Your task to perform on an android device: make emails show in primary in the gmail app Image 0: 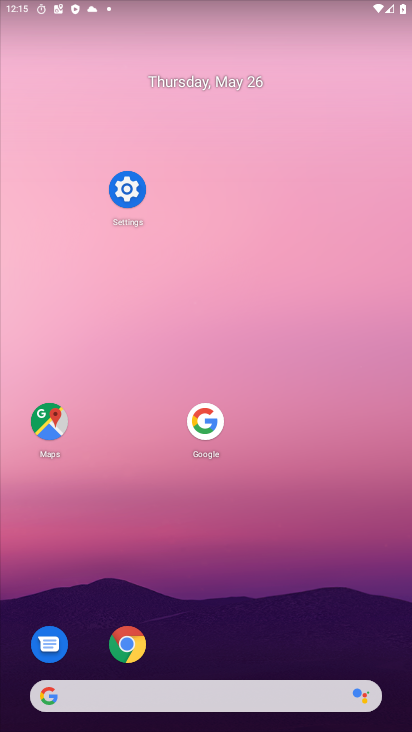
Step 0: drag from (250, 619) to (278, 166)
Your task to perform on an android device: make emails show in primary in the gmail app Image 1: 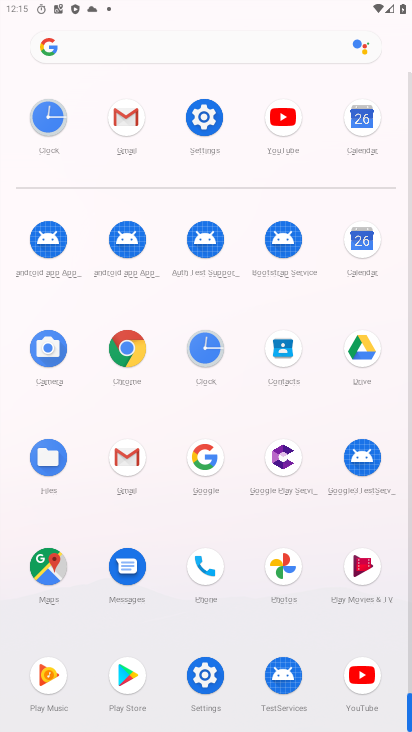
Step 1: click (129, 453)
Your task to perform on an android device: make emails show in primary in the gmail app Image 2: 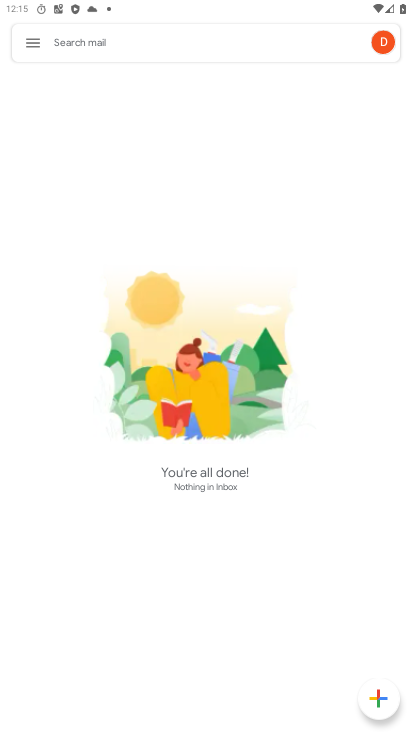
Step 2: click (26, 37)
Your task to perform on an android device: make emails show in primary in the gmail app Image 3: 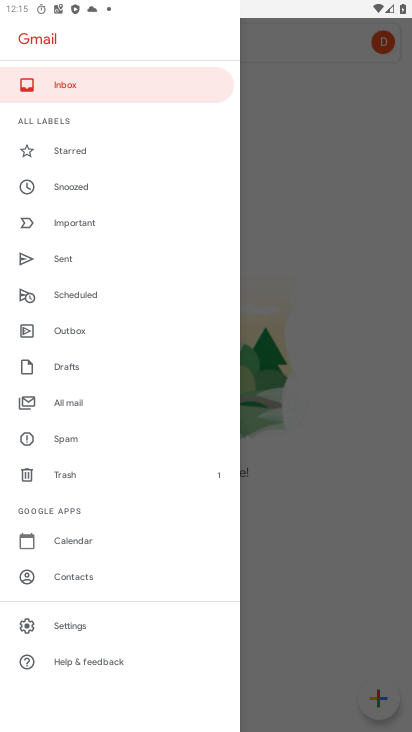
Step 3: click (82, 629)
Your task to perform on an android device: make emails show in primary in the gmail app Image 4: 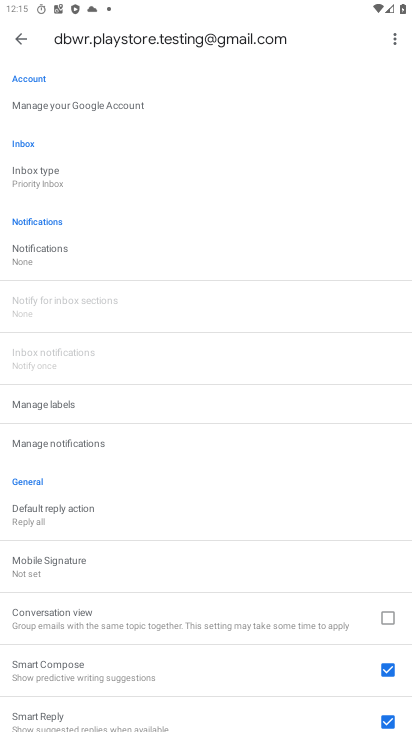
Step 4: click (29, 177)
Your task to perform on an android device: make emails show in primary in the gmail app Image 5: 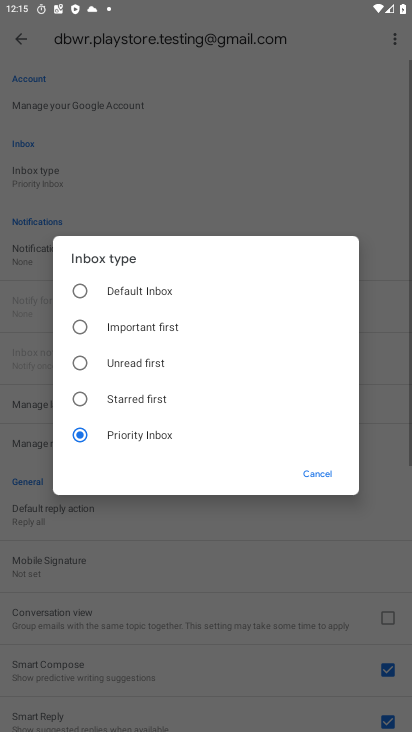
Step 5: click (125, 305)
Your task to perform on an android device: make emails show in primary in the gmail app Image 6: 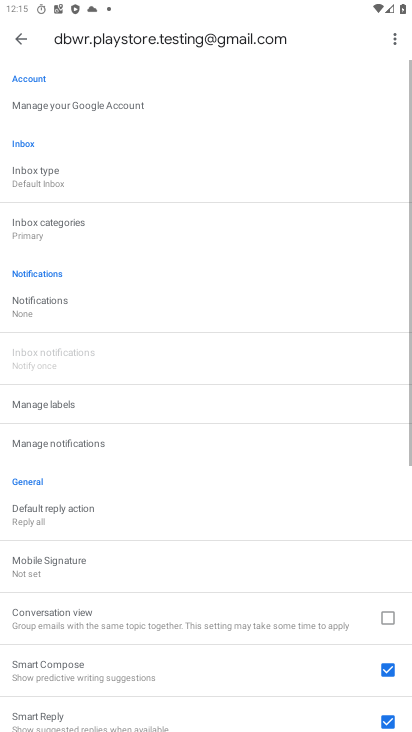
Step 6: task complete